Your task to perform on an android device: Find coffee shops on Maps Image 0: 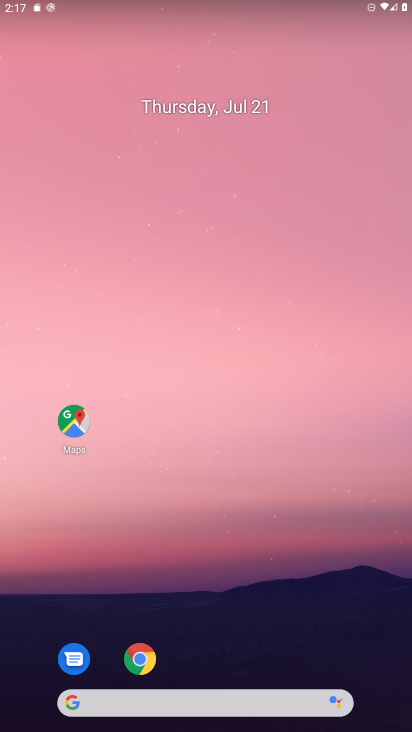
Step 0: click (63, 429)
Your task to perform on an android device: Find coffee shops on Maps Image 1: 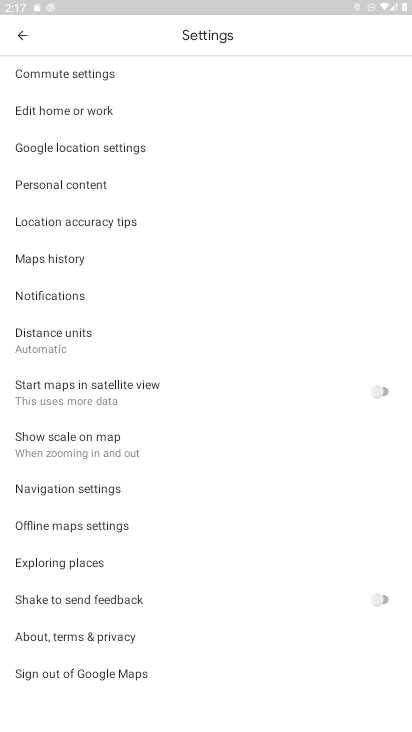
Step 1: click (22, 31)
Your task to perform on an android device: Find coffee shops on Maps Image 2: 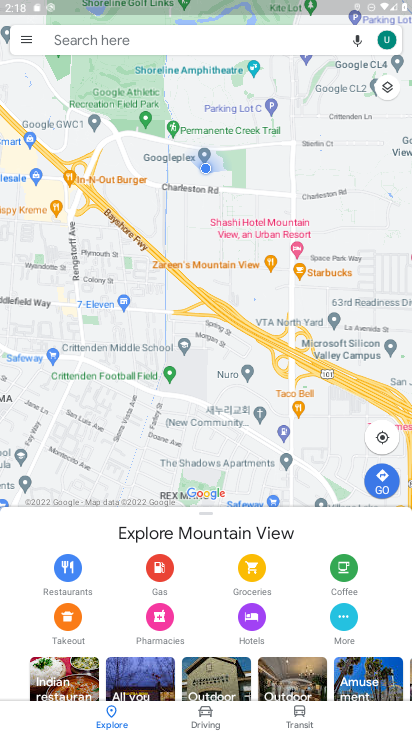
Step 2: click (199, 28)
Your task to perform on an android device: Find coffee shops on Maps Image 3: 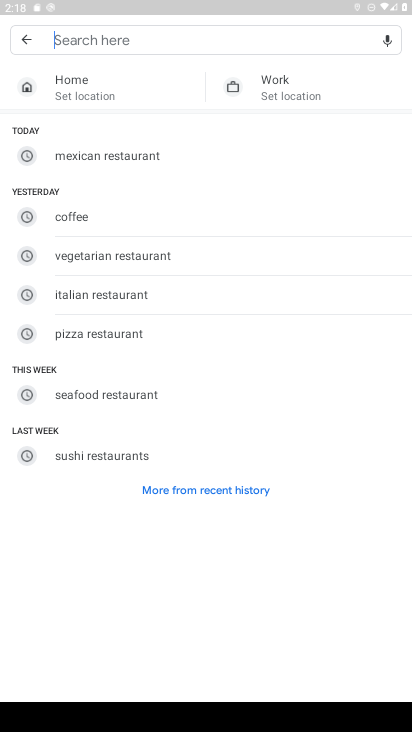
Step 3: click (116, 215)
Your task to perform on an android device: Find coffee shops on Maps Image 4: 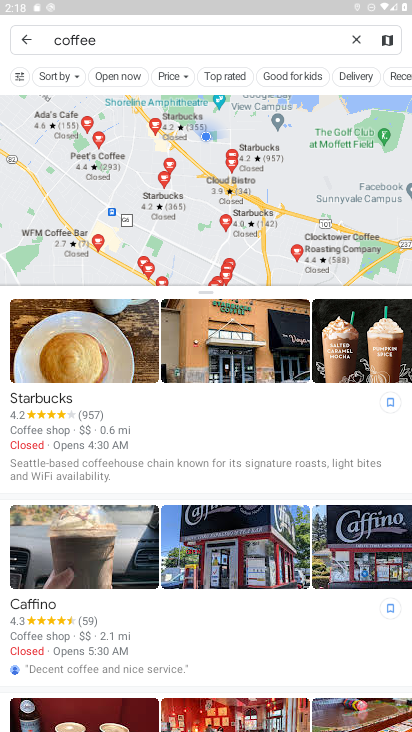
Step 4: task complete